Your task to perform on an android device: Go to sound settings Image 0: 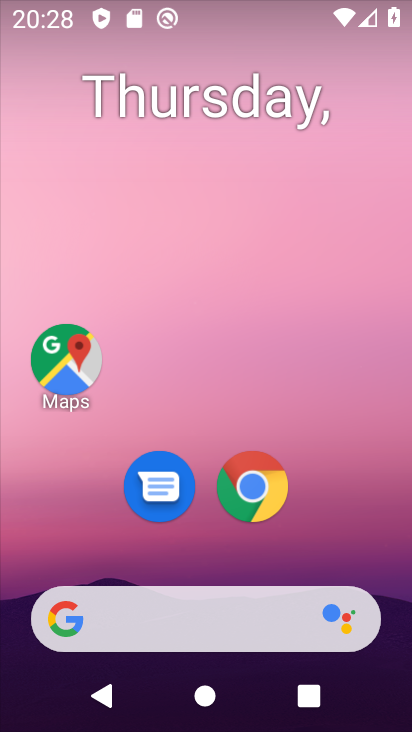
Step 0: drag from (221, 536) to (315, 52)
Your task to perform on an android device: Go to sound settings Image 1: 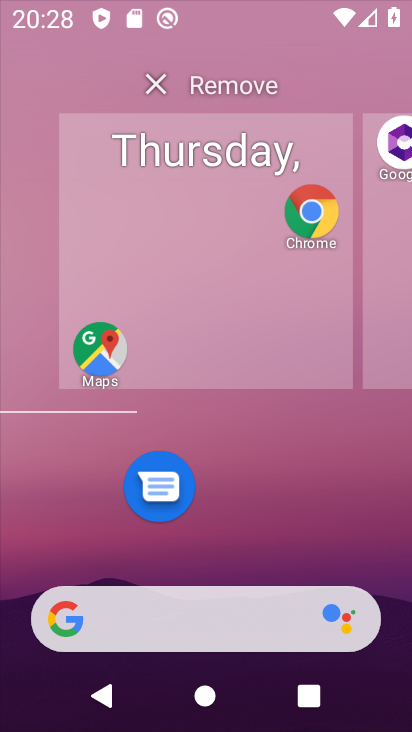
Step 1: click (253, 424)
Your task to perform on an android device: Go to sound settings Image 2: 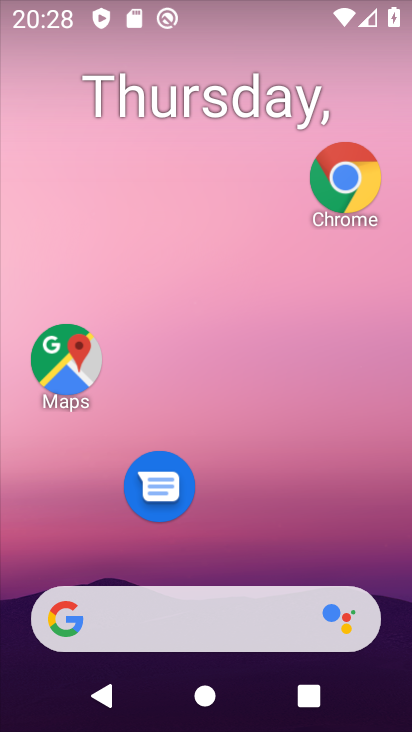
Step 2: drag from (241, 550) to (222, 27)
Your task to perform on an android device: Go to sound settings Image 3: 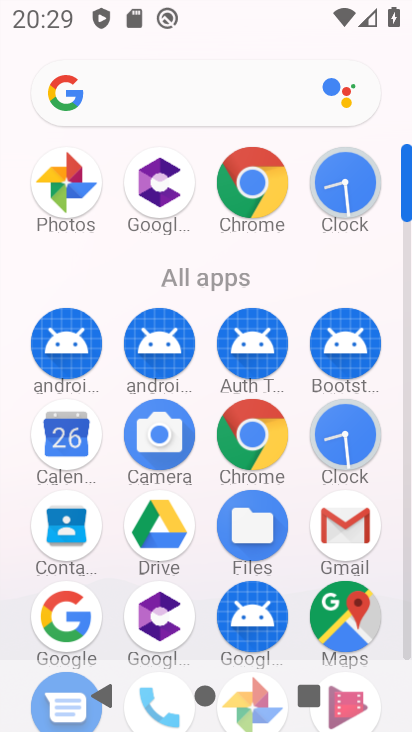
Step 3: drag from (115, 543) to (87, 43)
Your task to perform on an android device: Go to sound settings Image 4: 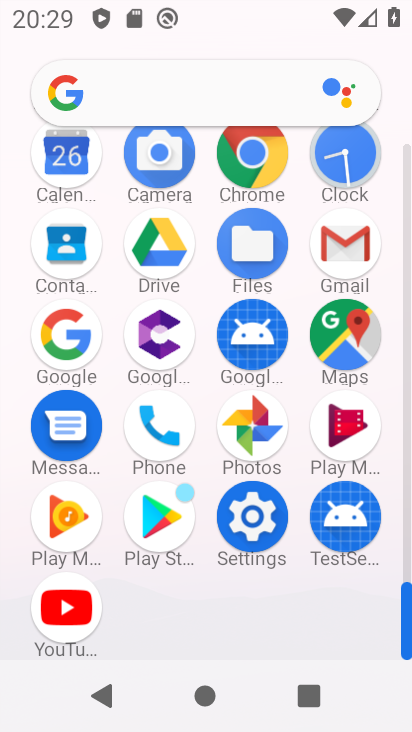
Step 4: click (231, 550)
Your task to perform on an android device: Go to sound settings Image 5: 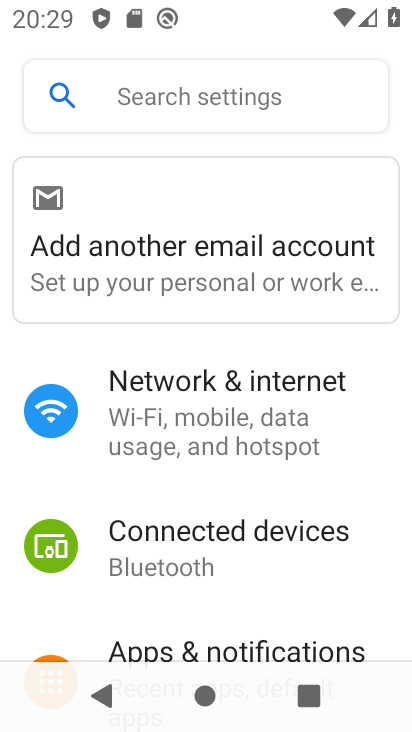
Step 5: drag from (268, 564) to (158, 90)
Your task to perform on an android device: Go to sound settings Image 6: 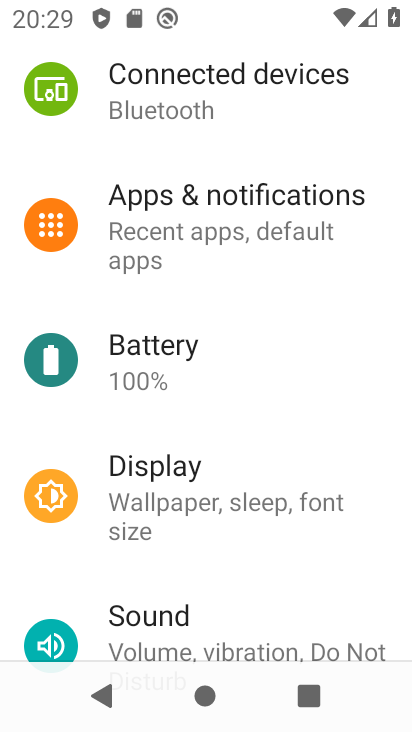
Step 6: click (154, 619)
Your task to perform on an android device: Go to sound settings Image 7: 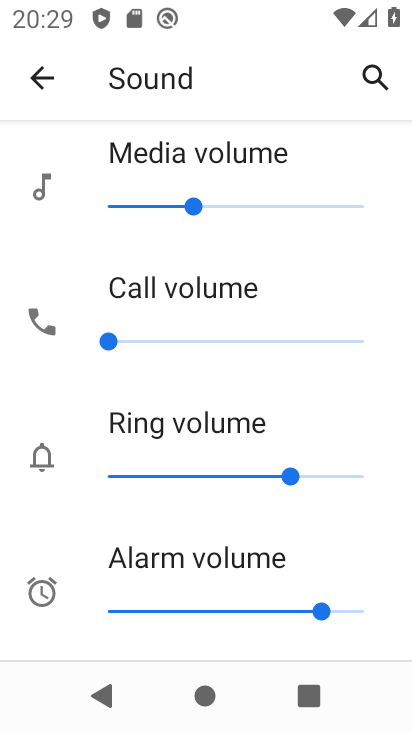
Step 7: task complete